Your task to perform on an android device: Open display settings Image 0: 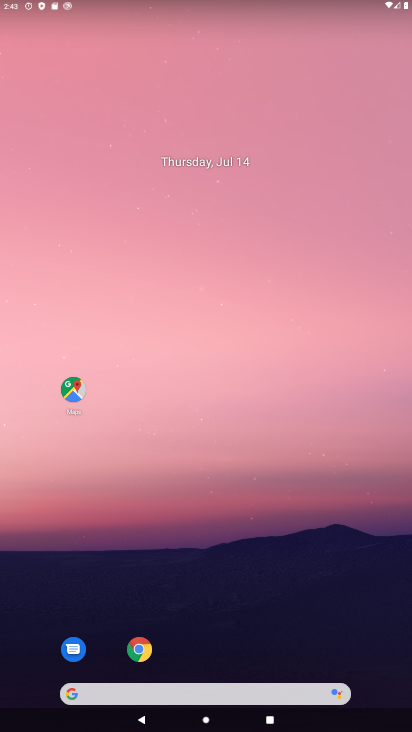
Step 0: drag from (206, 651) to (248, 144)
Your task to perform on an android device: Open display settings Image 1: 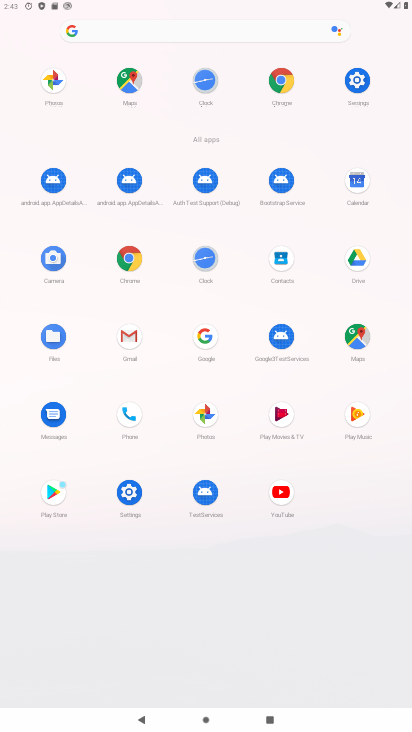
Step 1: click (360, 73)
Your task to perform on an android device: Open display settings Image 2: 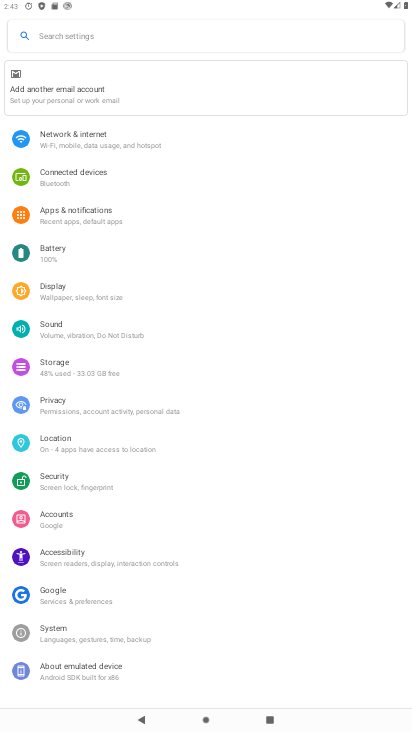
Step 2: click (137, 290)
Your task to perform on an android device: Open display settings Image 3: 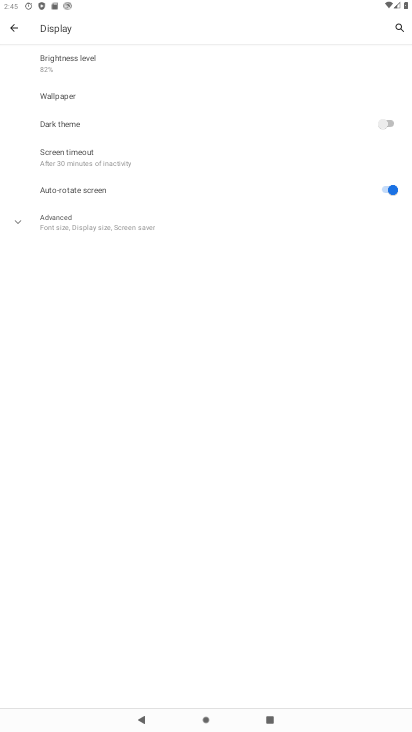
Step 3: press home button
Your task to perform on an android device: Open display settings Image 4: 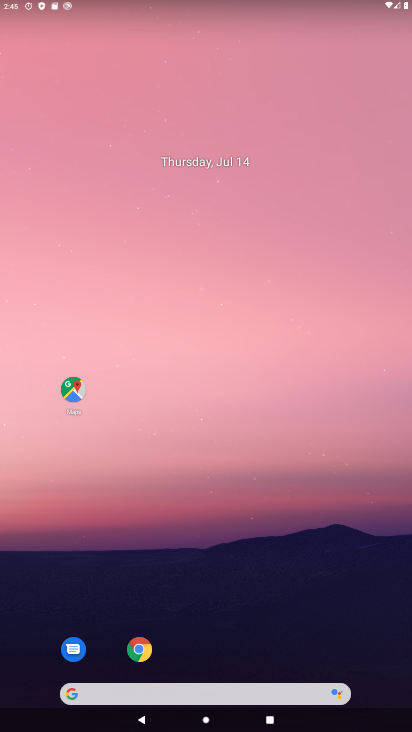
Step 4: drag from (282, 626) to (225, 196)
Your task to perform on an android device: Open display settings Image 5: 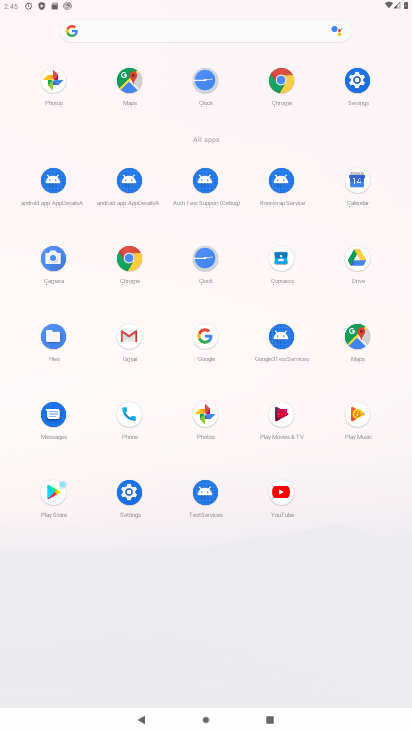
Step 5: click (351, 88)
Your task to perform on an android device: Open display settings Image 6: 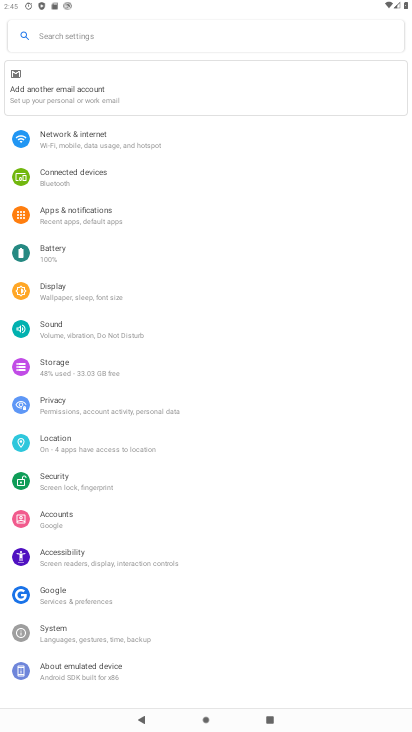
Step 6: click (144, 298)
Your task to perform on an android device: Open display settings Image 7: 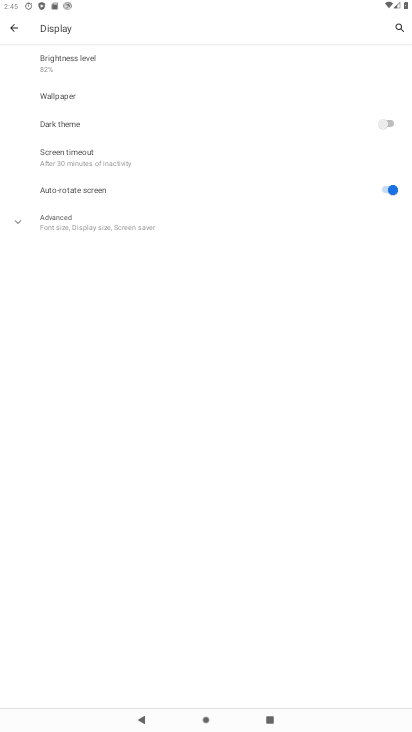
Step 7: task complete